Your task to perform on an android device: Show me popular games on the Play Store Image 0: 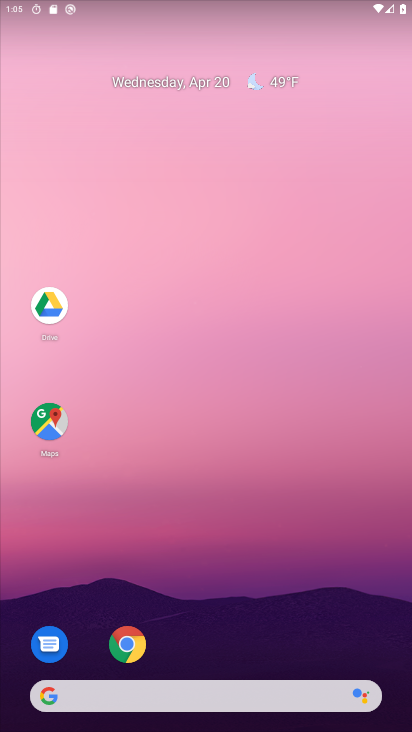
Step 0: drag from (189, 643) to (204, 68)
Your task to perform on an android device: Show me popular games on the Play Store Image 1: 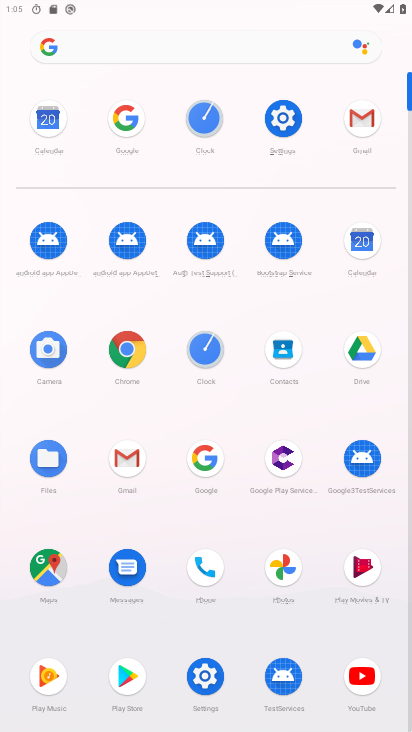
Step 1: click (126, 680)
Your task to perform on an android device: Show me popular games on the Play Store Image 2: 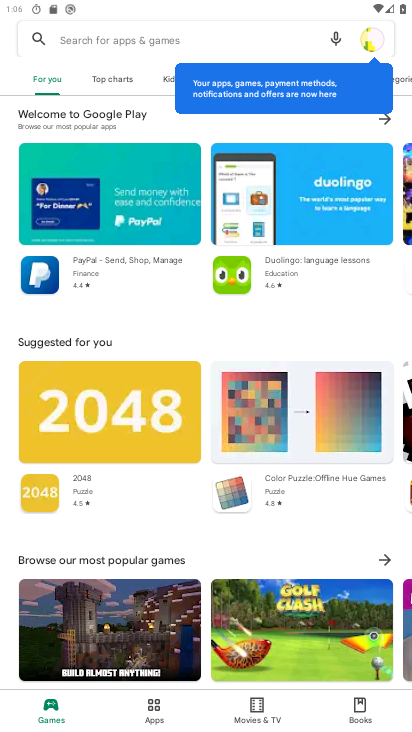
Step 2: click (49, 718)
Your task to perform on an android device: Show me popular games on the Play Store Image 3: 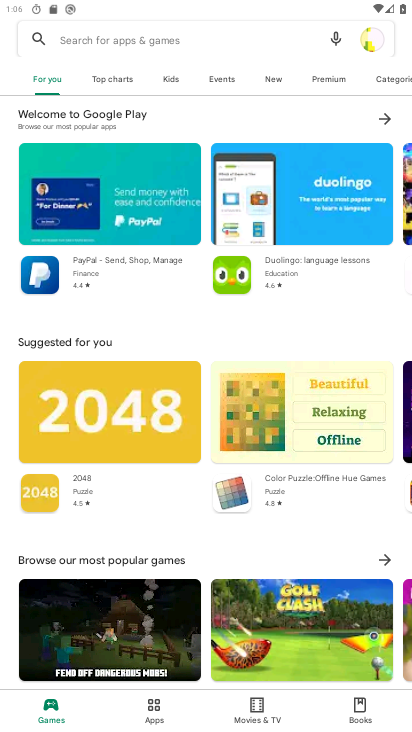
Step 3: click (117, 75)
Your task to perform on an android device: Show me popular games on the Play Store Image 4: 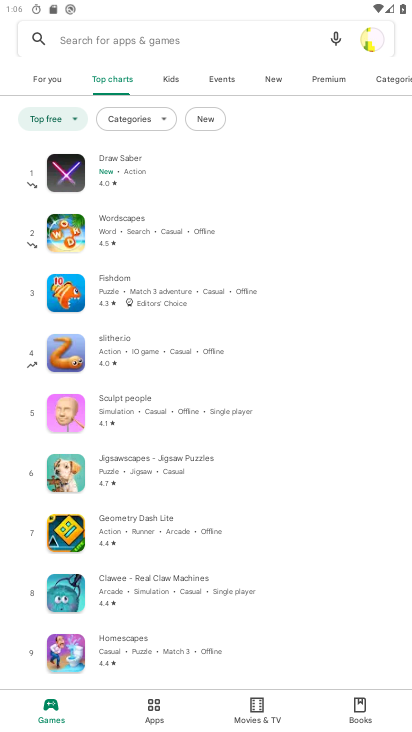
Step 4: task complete